Your task to perform on an android device: turn off translation in the chrome app Image 0: 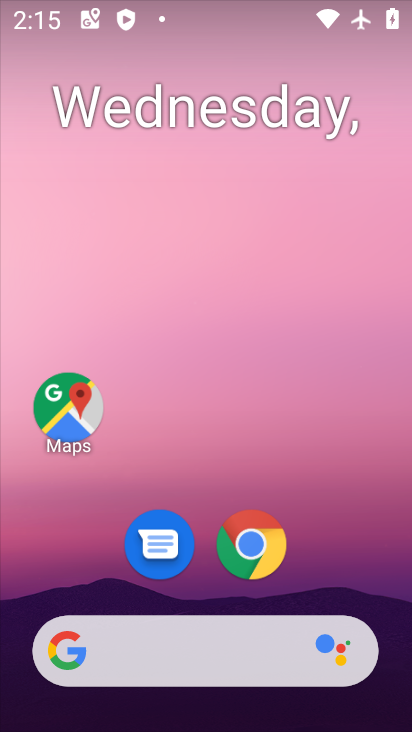
Step 0: drag from (347, 549) to (356, 193)
Your task to perform on an android device: turn off translation in the chrome app Image 1: 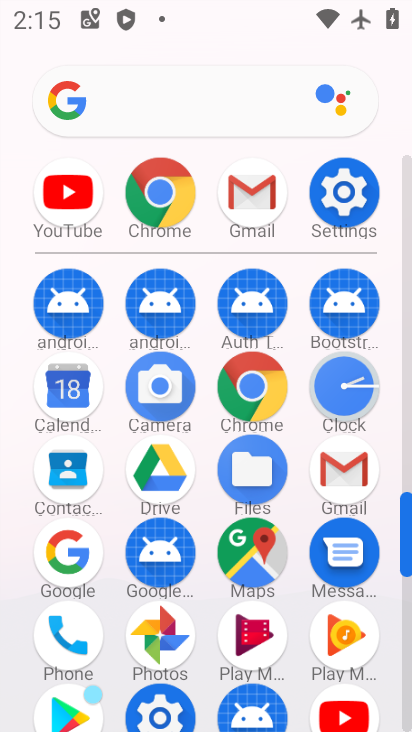
Step 1: click (180, 199)
Your task to perform on an android device: turn off translation in the chrome app Image 2: 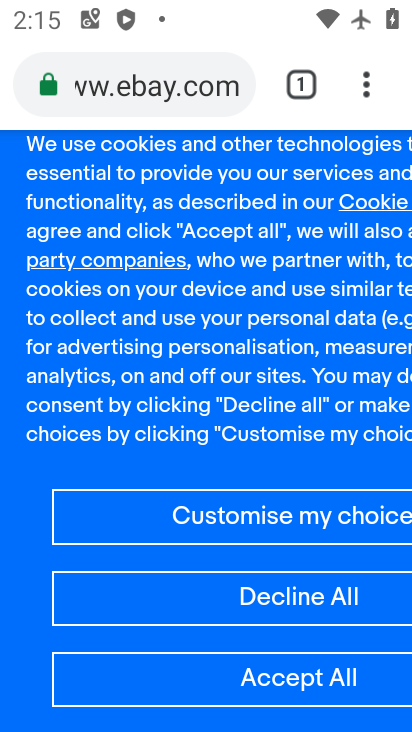
Step 2: click (365, 81)
Your task to perform on an android device: turn off translation in the chrome app Image 3: 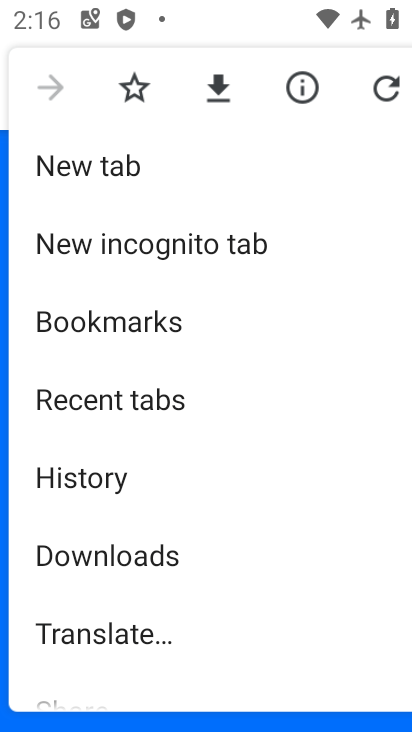
Step 3: drag from (164, 567) to (169, 410)
Your task to perform on an android device: turn off translation in the chrome app Image 4: 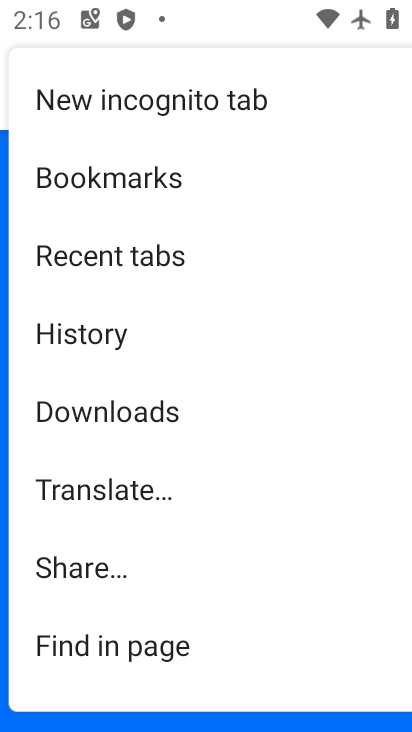
Step 4: drag from (137, 700) to (165, 208)
Your task to perform on an android device: turn off translation in the chrome app Image 5: 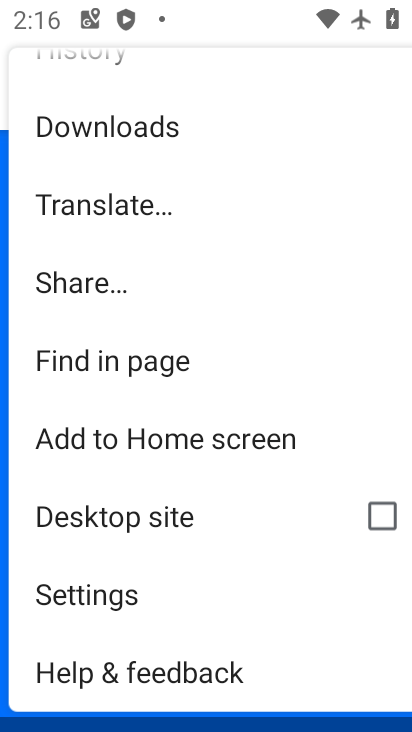
Step 5: click (109, 587)
Your task to perform on an android device: turn off translation in the chrome app Image 6: 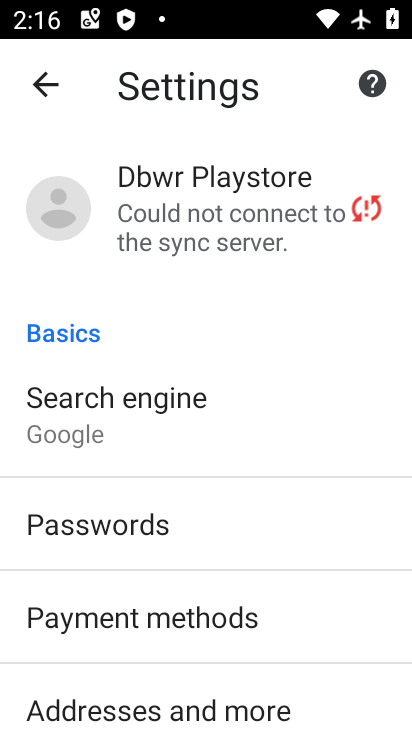
Step 6: drag from (171, 556) to (204, 110)
Your task to perform on an android device: turn off translation in the chrome app Image 7: 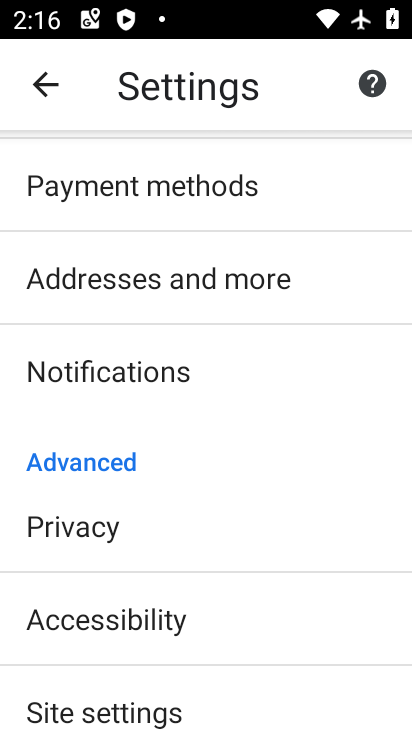
Step 7: drag from (205, 494) to (159, 215)
Your task to perform on an android device: turn off translation in the chrome app Image 8: 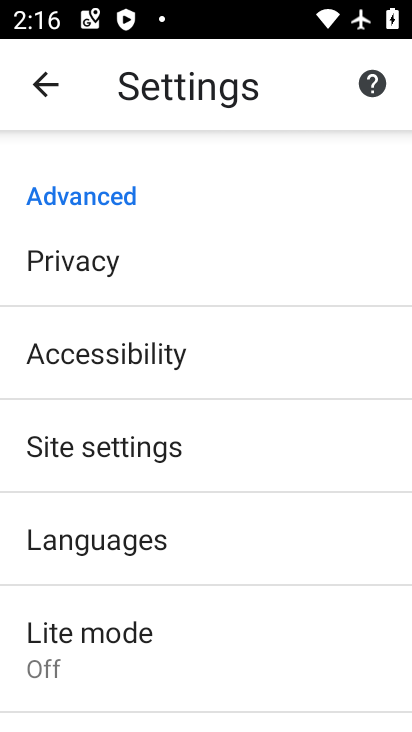
Step 8: click (187, 525)
Your task to perform on an android device: turn off translation in the chrome app Image 9: 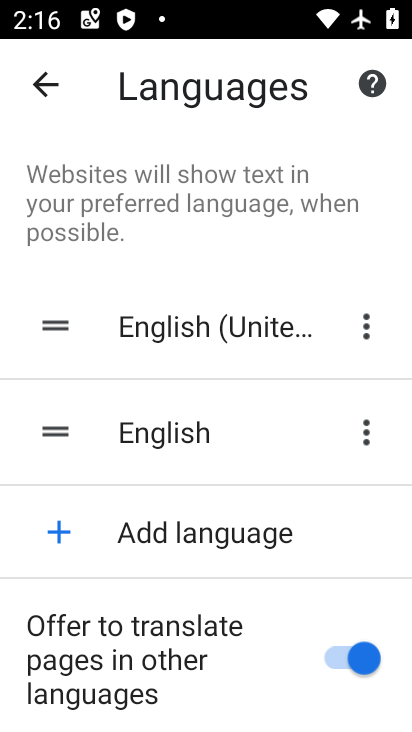
Step 9: click (261, 635)
Your task to perform on an android device: turn off translation in the chrome app Image 10: 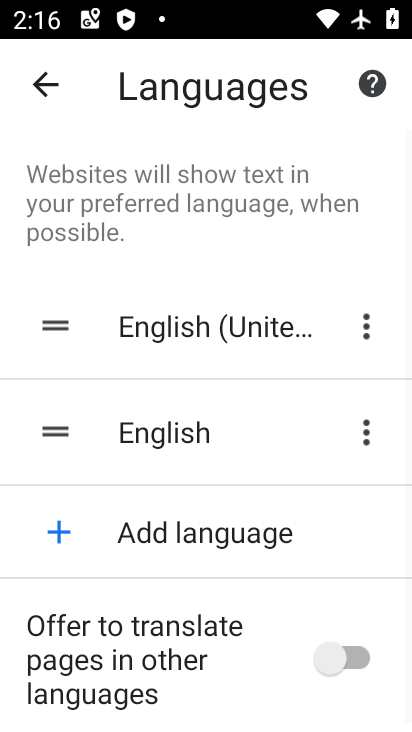
Step 10: task complete